Your task to perform on an android device: turn on data saver in the chrome app Image 0: 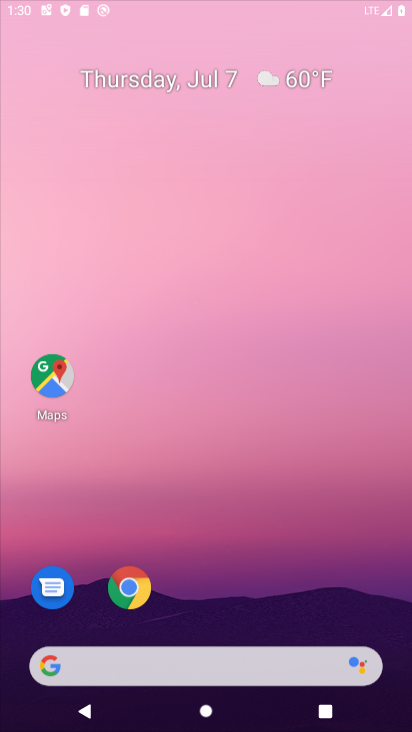
Step 0: click (262, 304)
Your task to perform on an android device: turn on data saver in the chrome app Image 1: 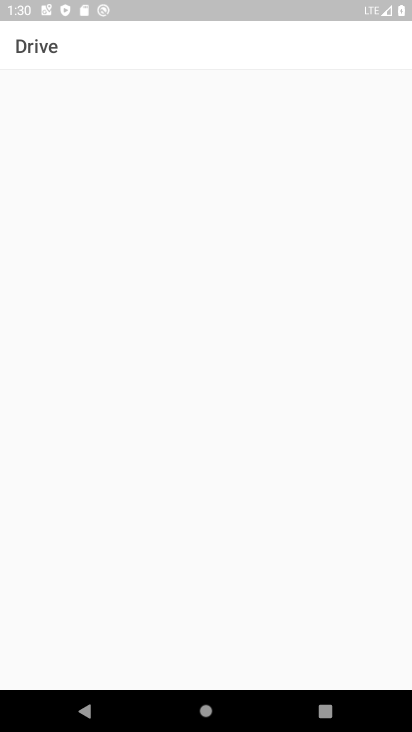
Step 1: press home button
Your task to perform on an android device: turn on data saver in the chrome app Image 2: 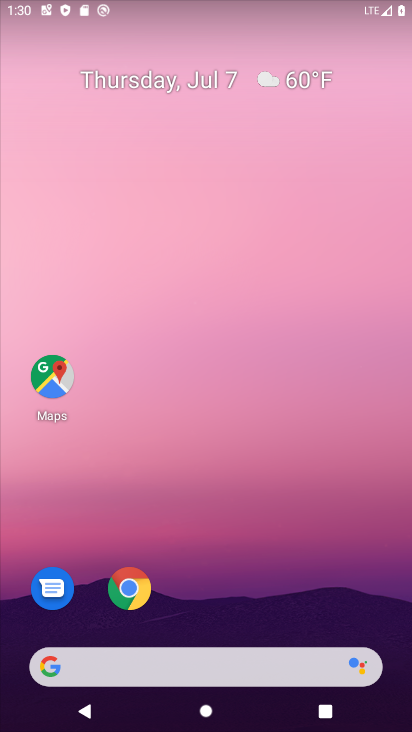
Step 2: drag from (245, 571) to (248, 206)
Your task to perform on an android device: turn on data saver in the chrome app Image 3: 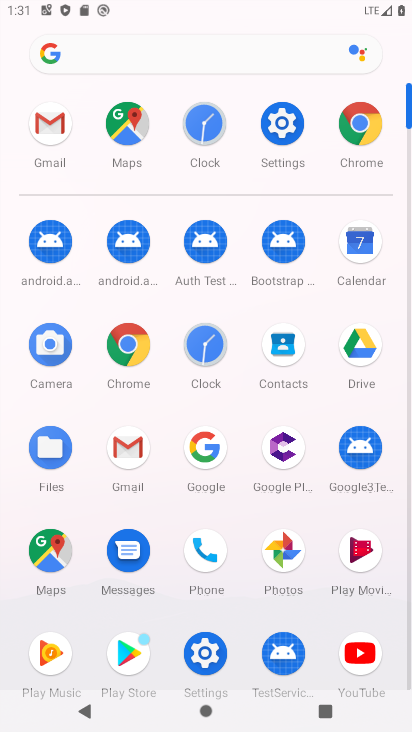
Step 3: click (340, 113)
Your task to perform on an android device: turn on data saver in the chrome app Image 4: 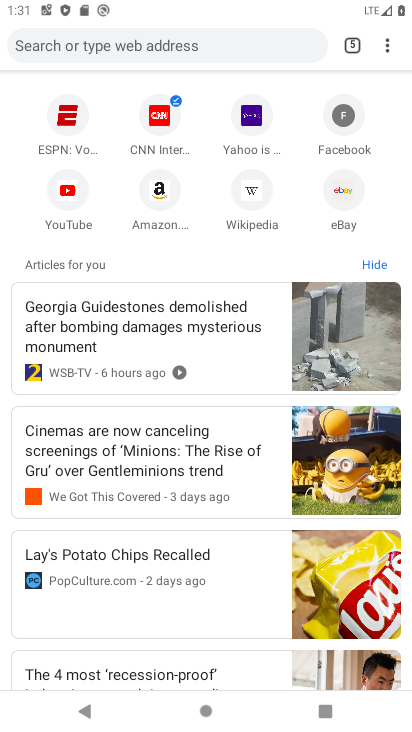
Step 4: click (382, 52)
Your task to perform on an android device: turn on data saver in the chrome app Image 5: 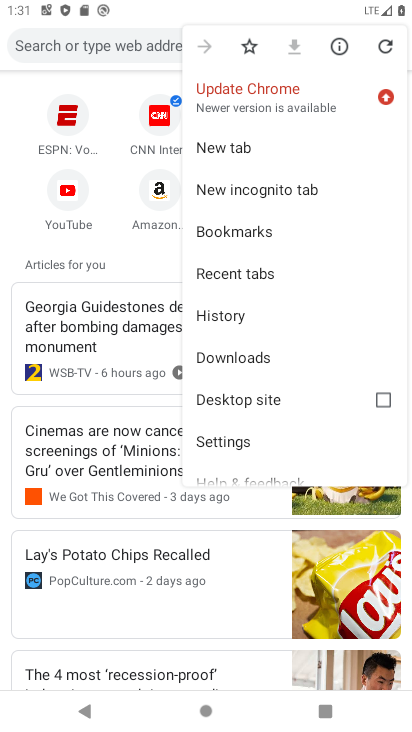
Step 5: click (244, 449)
Your task to perform on an android device: turn on data saver in the chrome app Image 6: 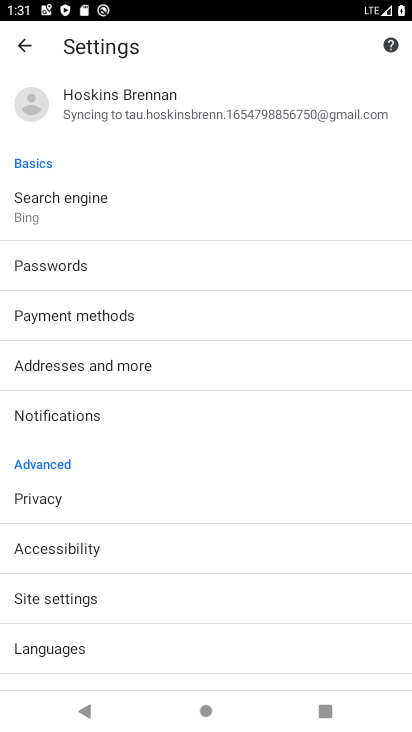
Step 6: drag from (173, 611) to (221, 281)
Your task to perform on an android device: turn on data saver in the chrome app Image 7: 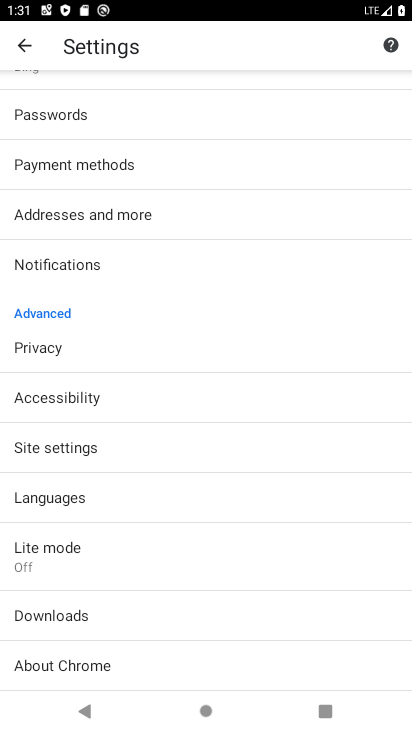
Step 7: click (99, 547)
Your task to perform on an android device: turn on data saver in the chrome app Image 8: 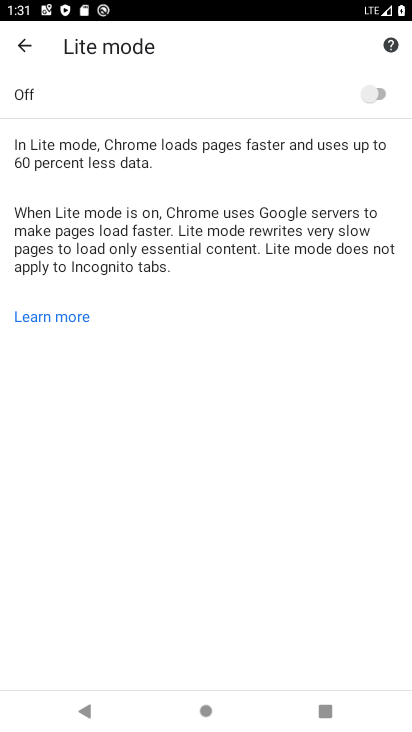
Step 8: click (386, 95)
Your task to perform on an android device: turn on data saver in the chrome app Image 9: 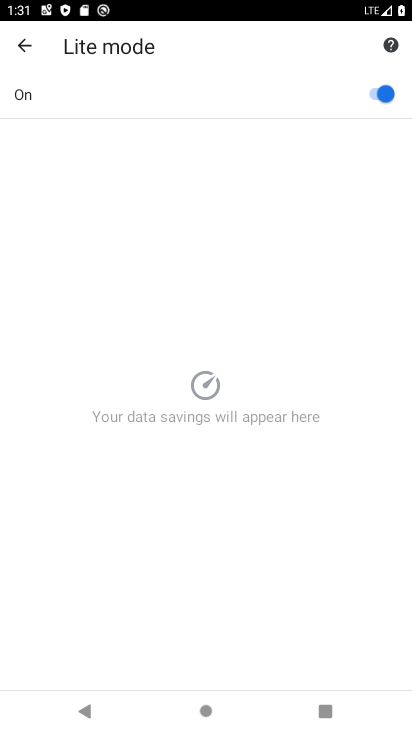
Step 9: task complete